Your task to perform on an android device: toggle javascript in the chrome app Image 0: 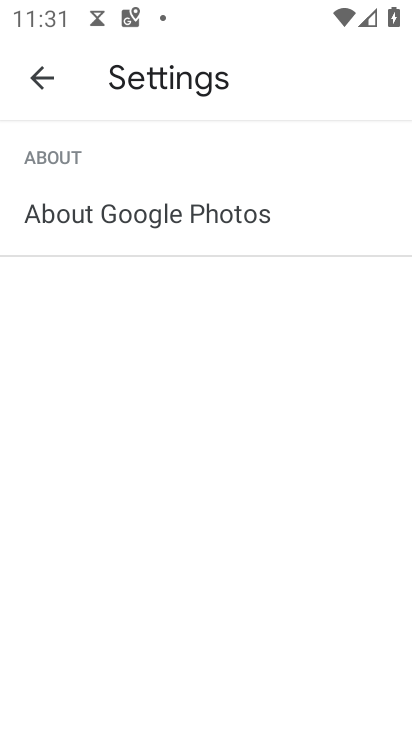
Step 0: press home button
Your task to perform on an android device: toggle javascript in the chrome app Image 1: 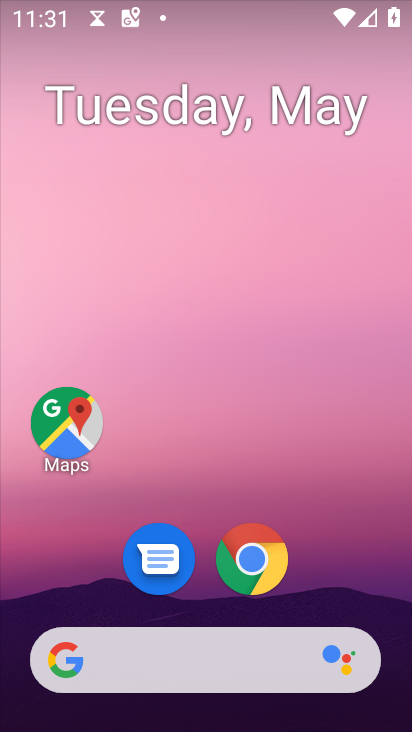
Step 1: click (278, 566)
Your task to perform on an android device: toggle javascript in the chrome app Image 2: 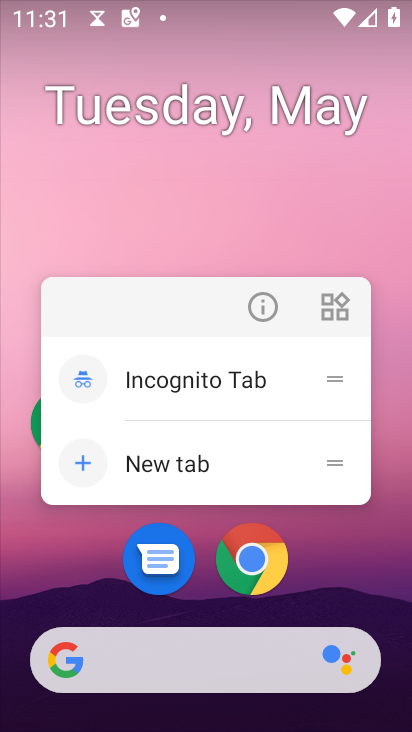
Step 2: click (255, 568)
Your task to perform on an android device: toggle javascript in the chrome app Image 3: 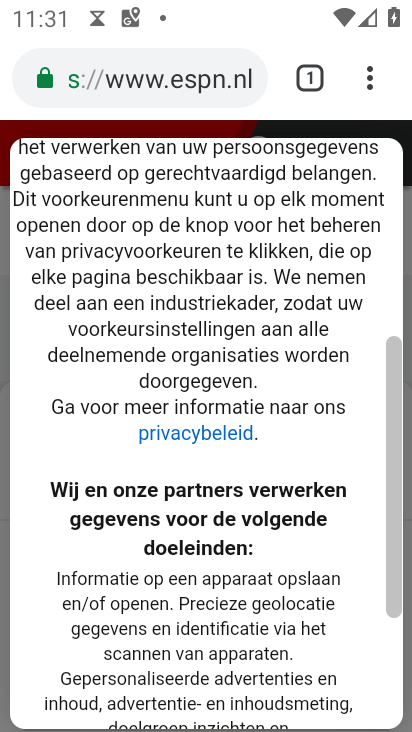
Step 3: drag from (369, 90) to (205, 618)
Your task to perform on an android device: toggle javascript in the chrome app Image 4: 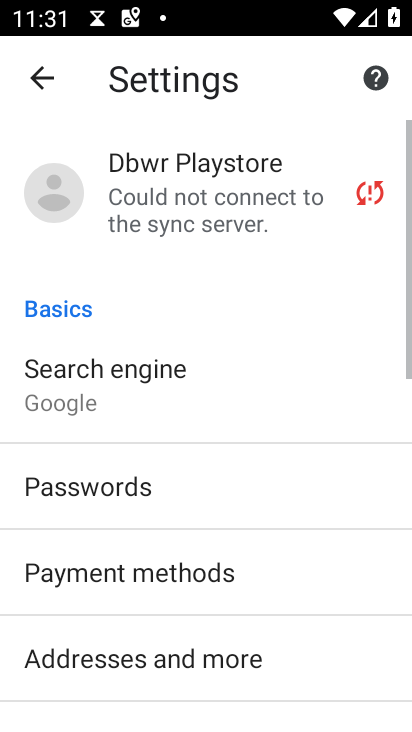
Step 4: drag from (257, 627) to (285, 217)
Your task to perform on an android device: toggle javascript in the chrome app Image 5: 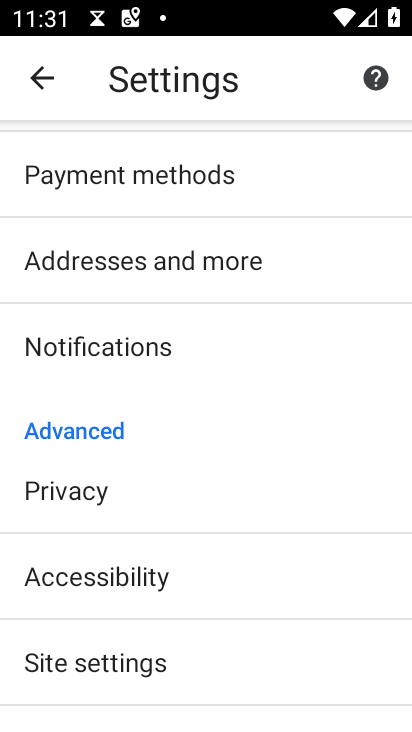
Step 5: drag from (257, 655) to (326, 158)
Your task to perform on an android device: toggle javascript in the chrome app Image 6: 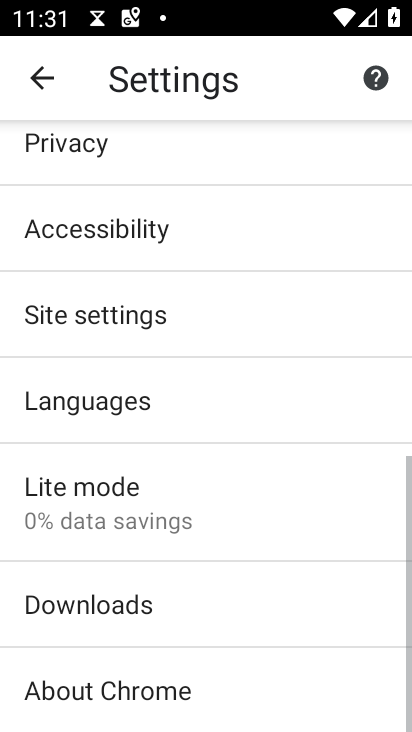
Step 6: click (203, 291)
Your task to perform on an android device: toggle javascript in the chrome app Image 7: 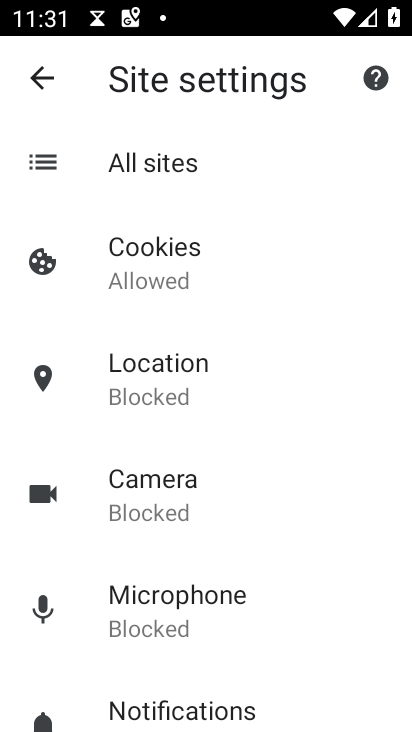
Step 7: drag from (213, 632) to (287, 105)
Your task to perform on an android device: toggle javascript in the chrome app Image 8: 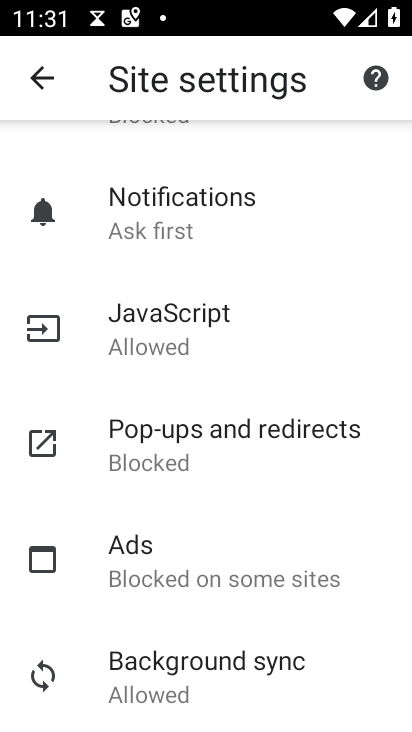
Step 8: click (186, 327)
Your task to perform on an android device: toggle javascript in the chrome app Image 9: 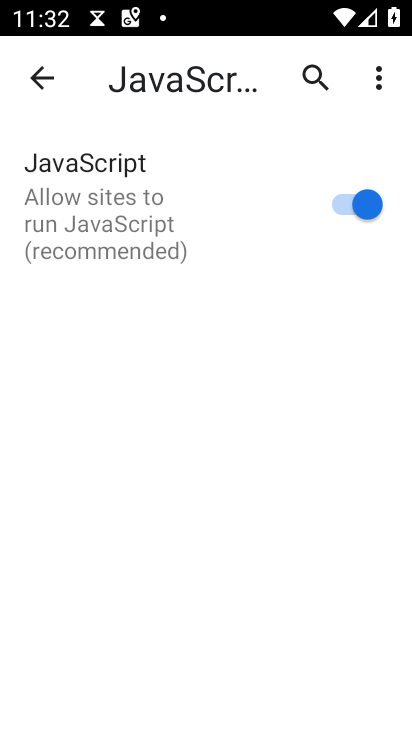
Step 9: click (354, 204)
Your task to perform on an android device: toggle javascript in the chrome app Image 10: 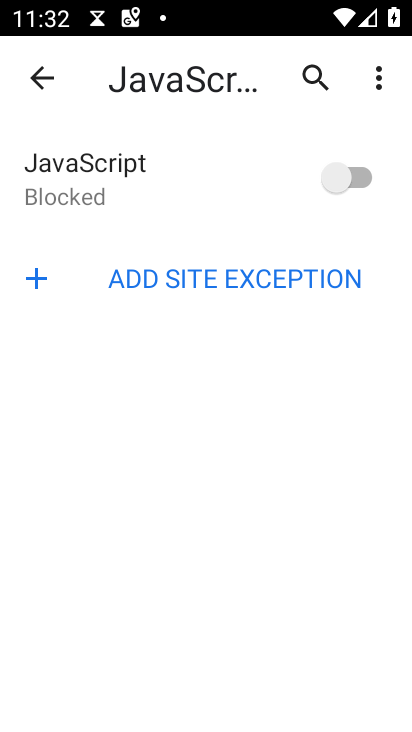
Step 10: task complete